Your task to perform on an android device: uninstall "Messages" Image 0: 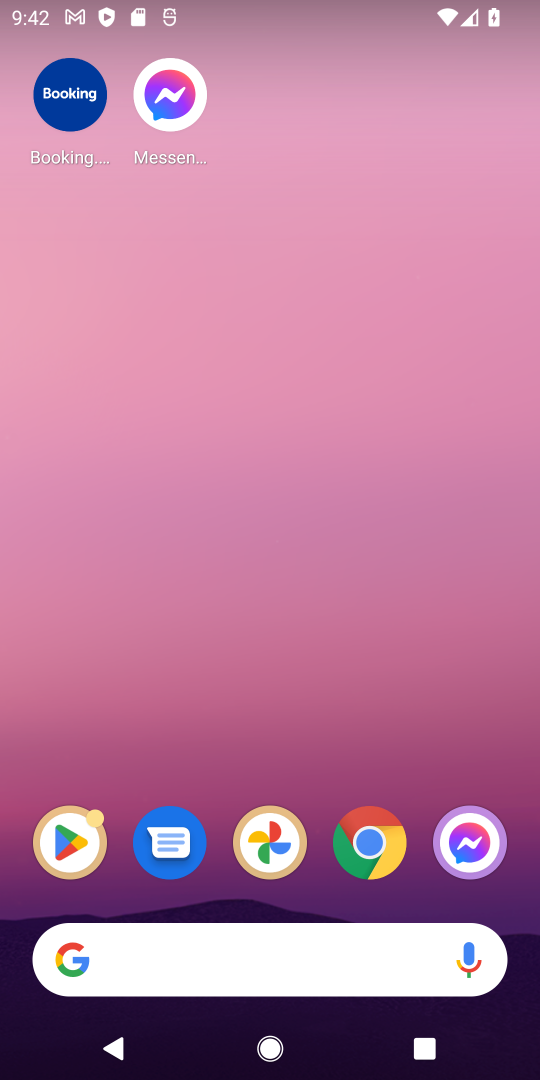
Step 0: click (176, 844)
Your task to perform on an android device: uninstall "Messages" Image 1: 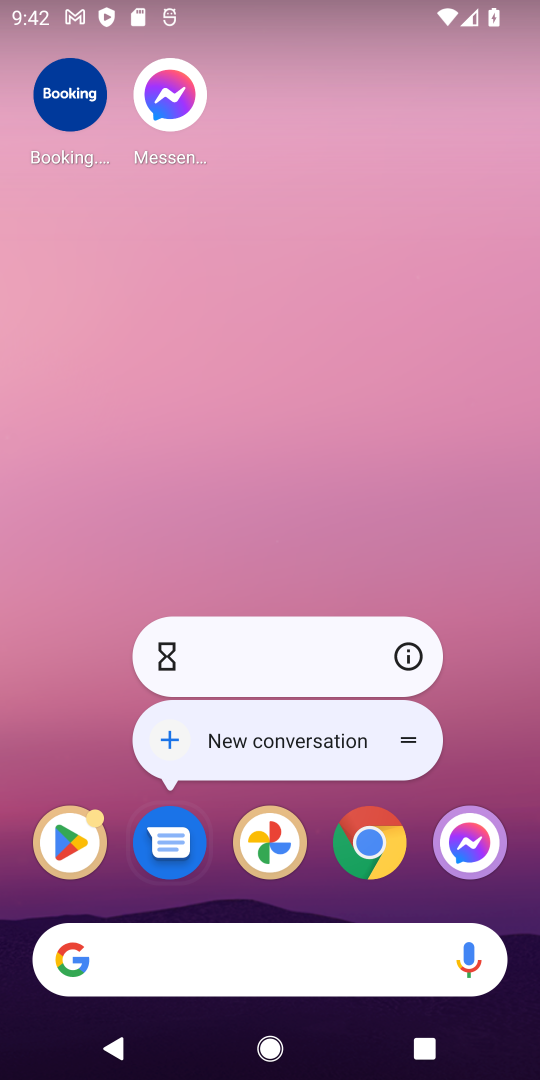
Step 1: click (400, 654)
Your task to perform on an android device: uninstall "Messages" Image 2: 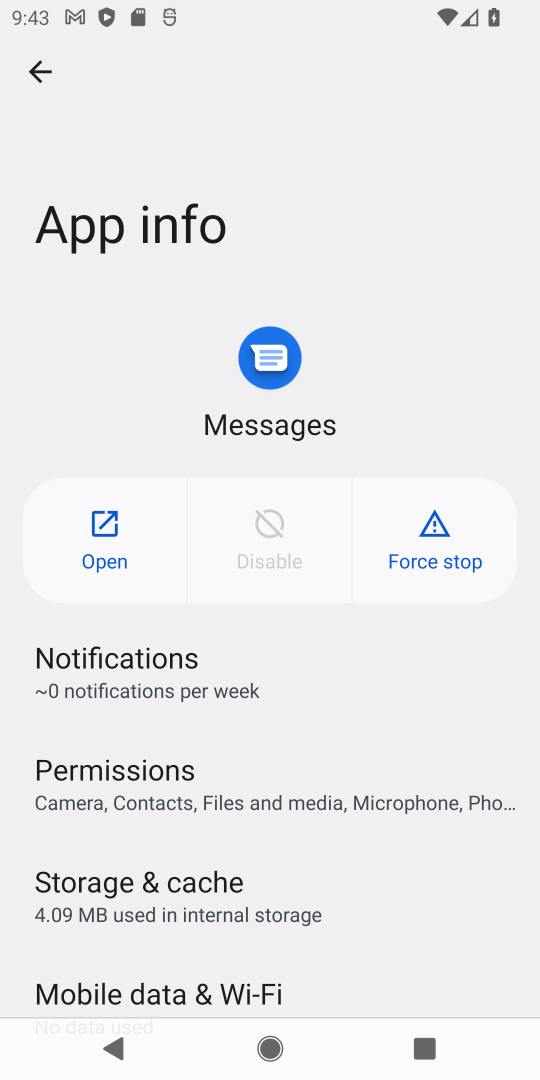
Step 2: task complete